Your task to perform on an android device: What's the weather going to be tomorrow? Image 0: 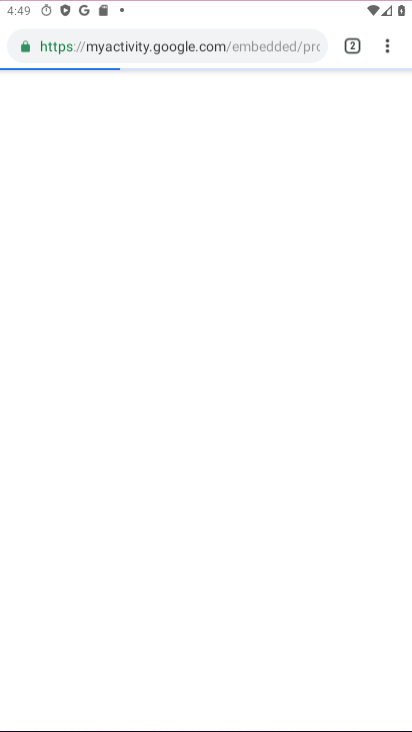
Step 0: press home button
Your task to perform on an android device: What's the weather going to be tomorrow? Image 1: 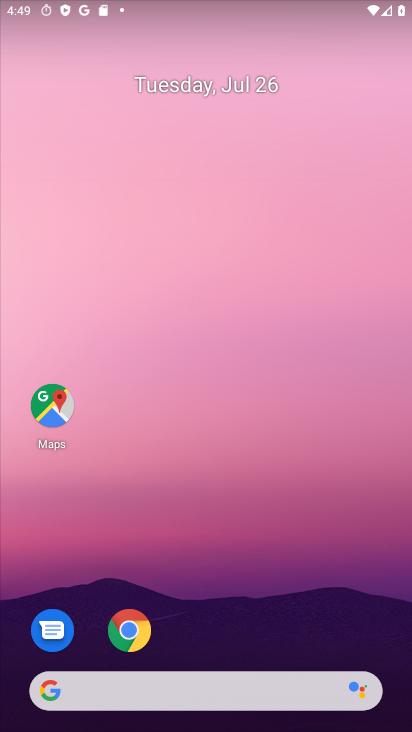
Step 1: drag from (290, 652) to (322, 200)
Your task to perform on an android device: What's the weather going to be tomorrow? Image 2: 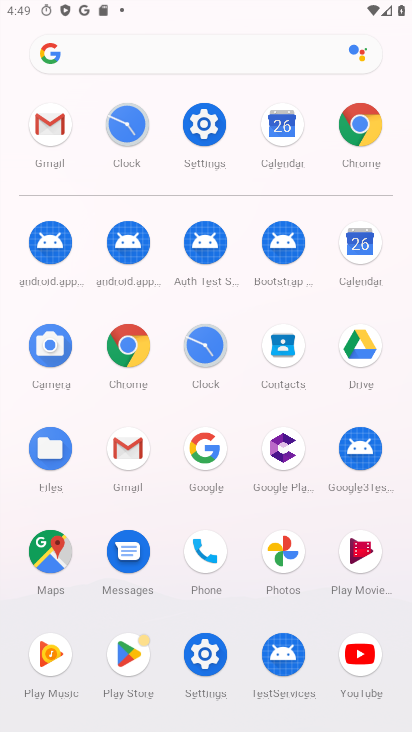
Step 2: click (369, 119)
Your task to perform on an android device: What's the weather going to be tomorrow? Image 3: 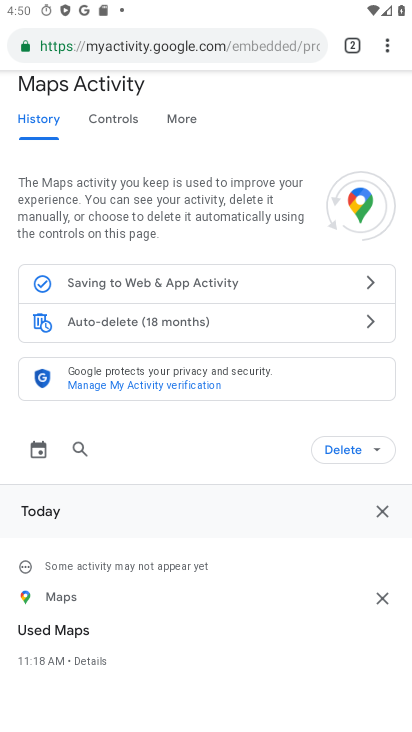
Step 3: click (173, 36)
Your task to perform on an android device: What's the weather going to be tomorrow? Image 4: 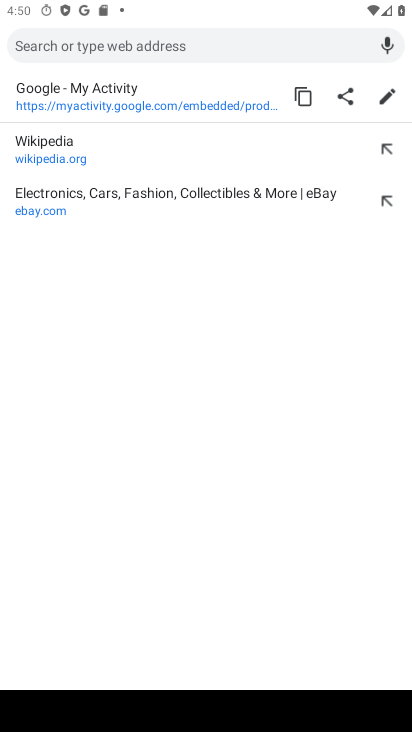
Step 4: type "weather"
Your task to perform on an android device: What's the weather going to be tomorrow? Image 5: 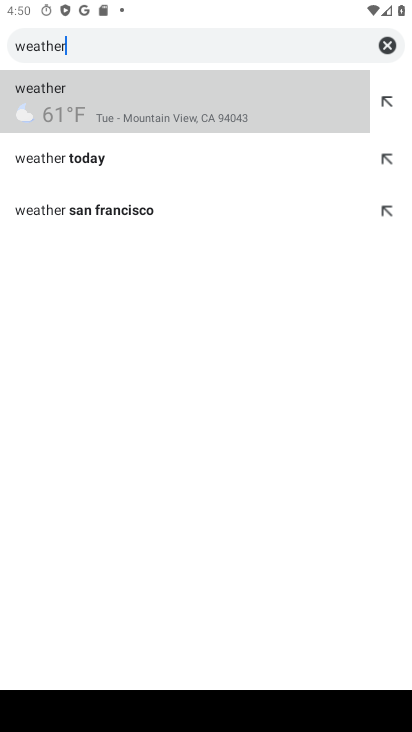
Step 5: click (202, 103)
Your task to perform on an android device: What's the weather going to be tomorrow? Image 6: 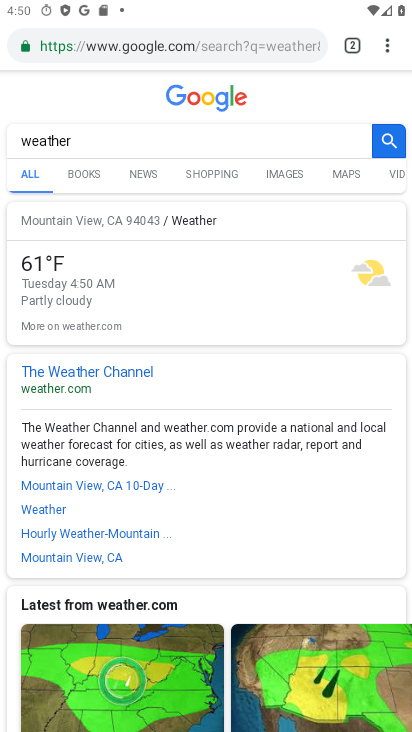
Step 6: task complete